Your task to perform on an android device: Go to display settings Image 0: 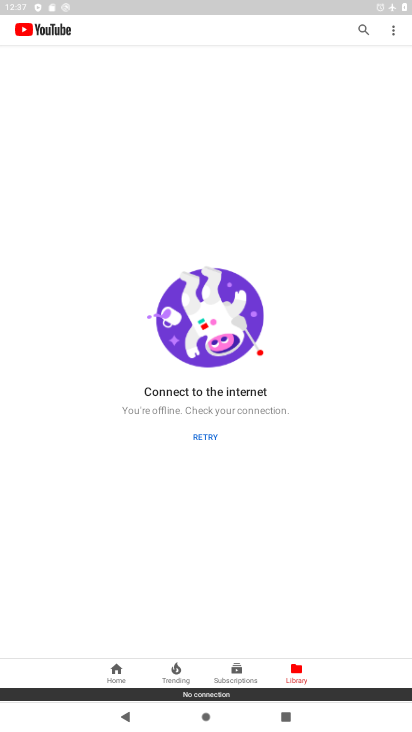
Step 0: press home button
Your task to perform on an android device: Go to display settings Image 1: 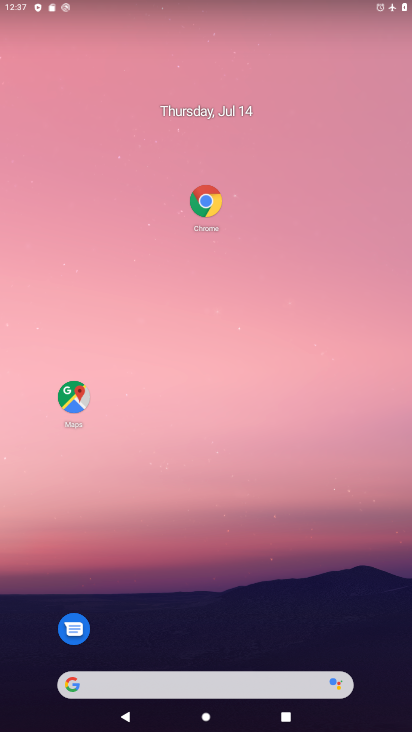
Step 1: drag from (238, 637) to (131, 53)
Your task to perform on an android device: Go to display settings Image 2: 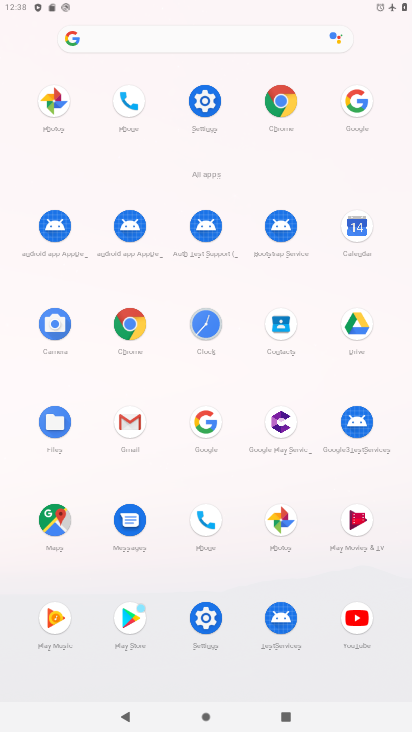
Step 2: click (192, 96)
Your task to perform on an android device: Go to display settings Image 3: 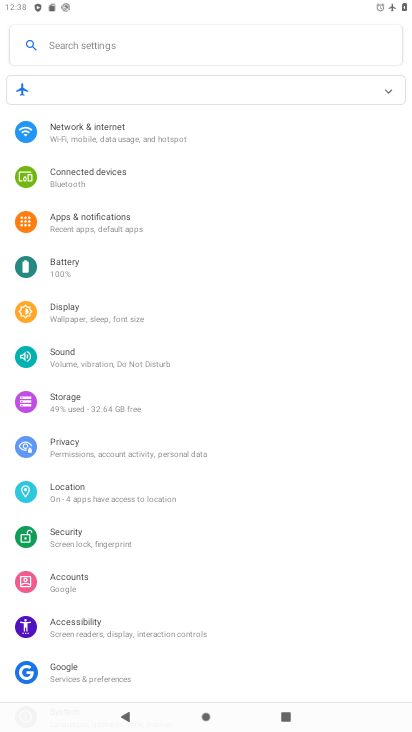
Step 3: click (38, 311)
Your task to perform on an android device: Go to display settings Image 4: 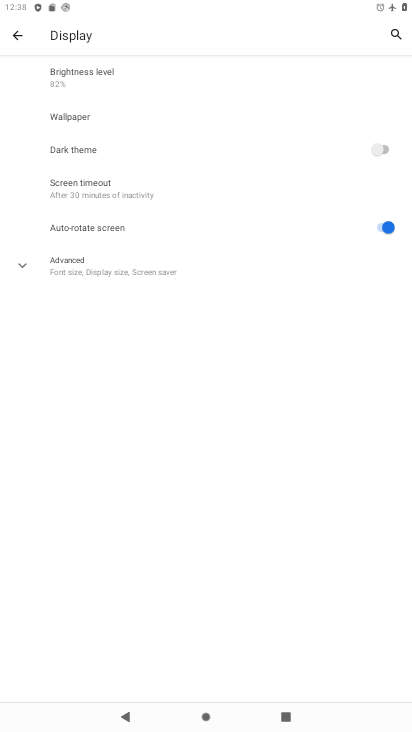
Step 4: click (41, 271)
Your task to perform on an android device: Go to display settings Image 5: 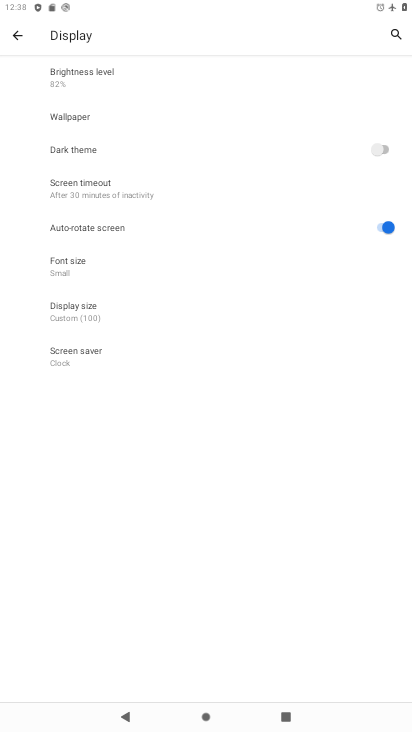
Step 5: task complete